Your task to perform on an android device: set default search engine in the chrome app Image 0: 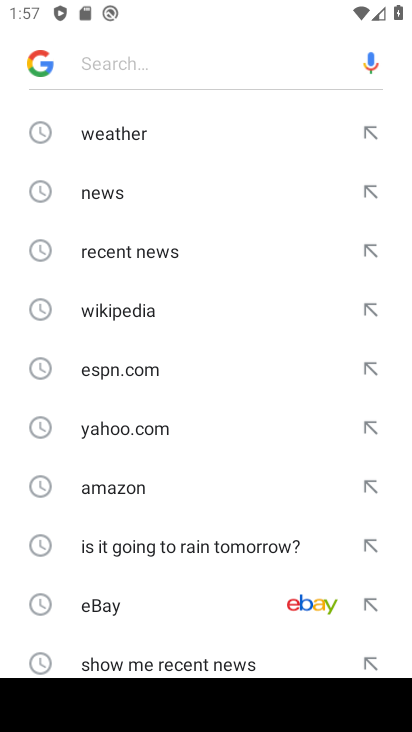
Step 0: press home button
Your task to perform on an android device: set default search engine in the chrome app Image 1: 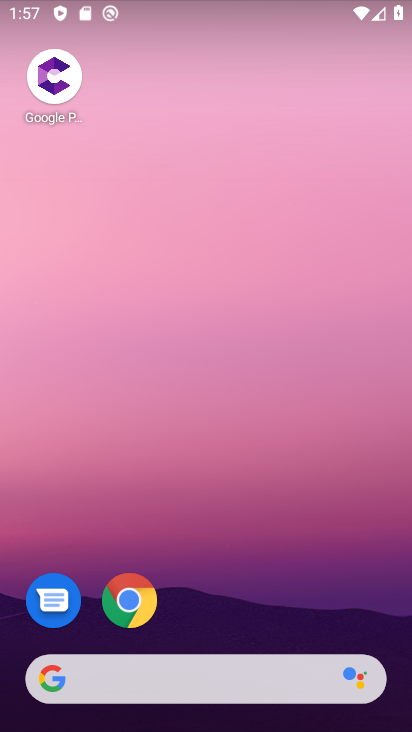
Step 1: click (131, 596)
Your task to perform on an android device: set default search engine in the chrome app Image 2: 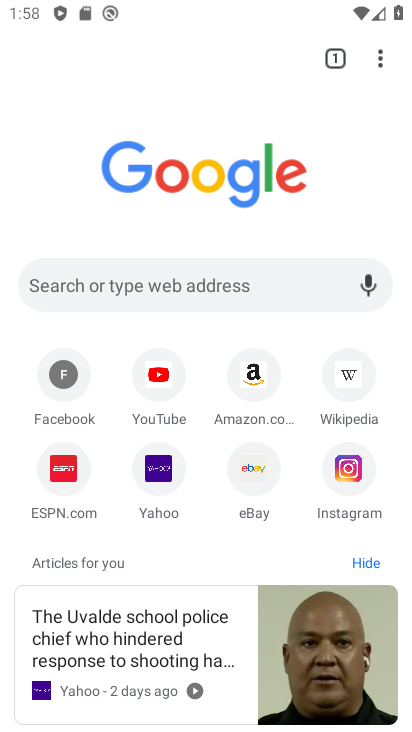
Step 2: click (385, 57)
Your task to perform on an android device: set default search engine in the chrome app Image 3: 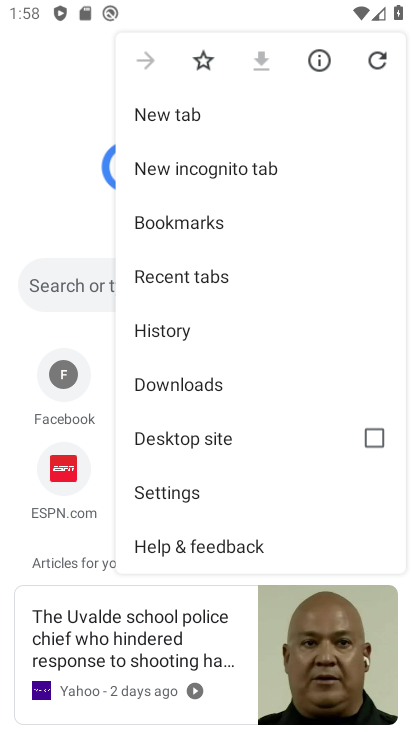
Step 3: click (178, 496)
Your task to perform on an android device: set default search engine in the chrome app Image 4: 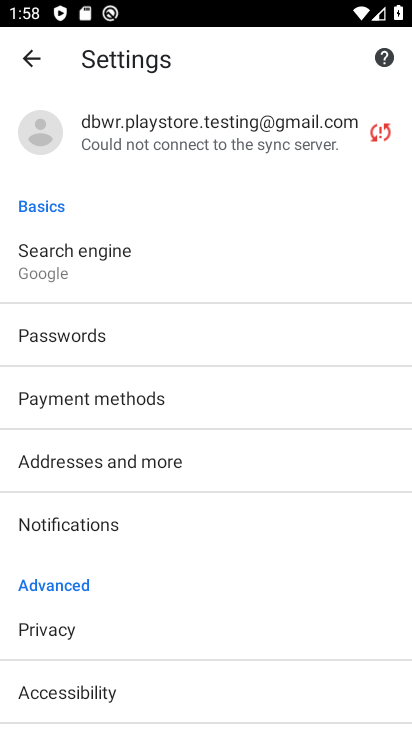
Step 4: click (119, 263)
Your task to perform on an android device: set default search engine in the chrome app Image 5: 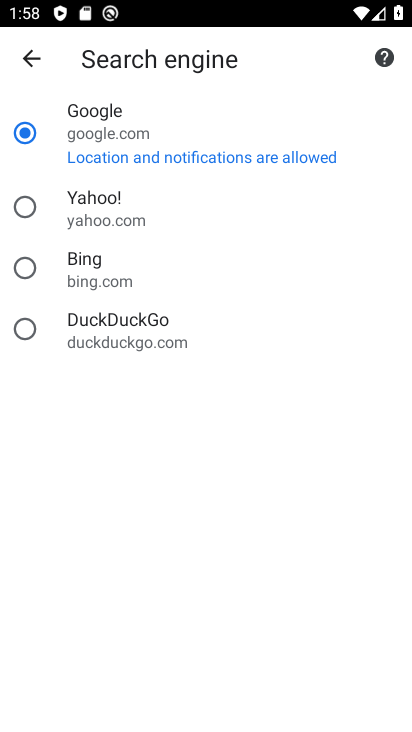
Step 5: task complete